Your task to perform on an android device: Open calendar and show me the third week of next month Image 0: 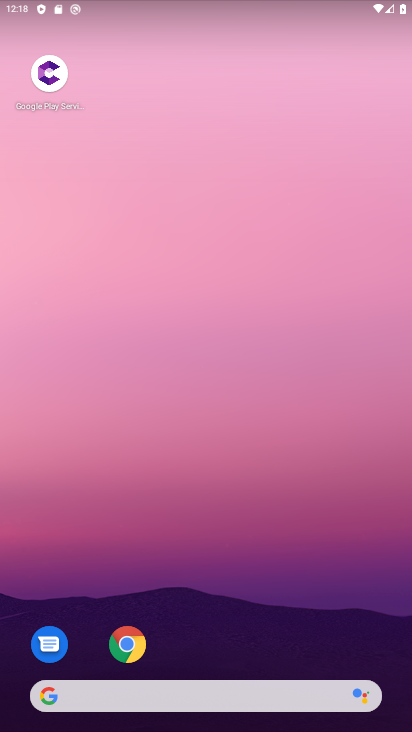
Step 0: drag from (220, 675) to (190, 194)
Your task to perform on an android device: Open calendar and show me the third week of next month Image 1: 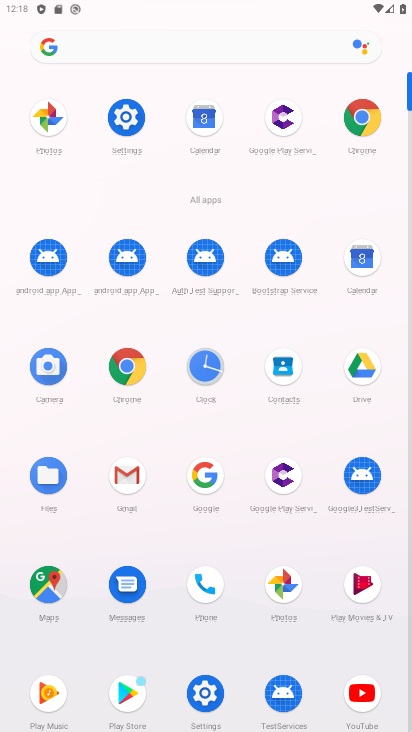
Step 1: click (194, 113)
Your task to perform on an android device: Open calendar and show me the third week of next month Image 2: 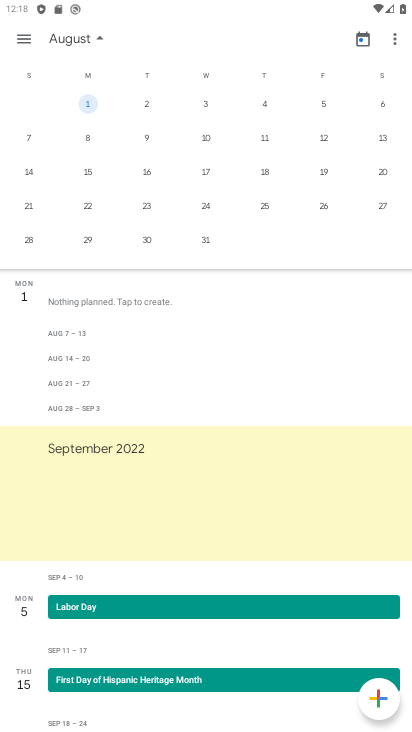
Step 2: click (28, 170)
Your task to perform on an android device: Open calendar and show me the third week of next month Image 3: 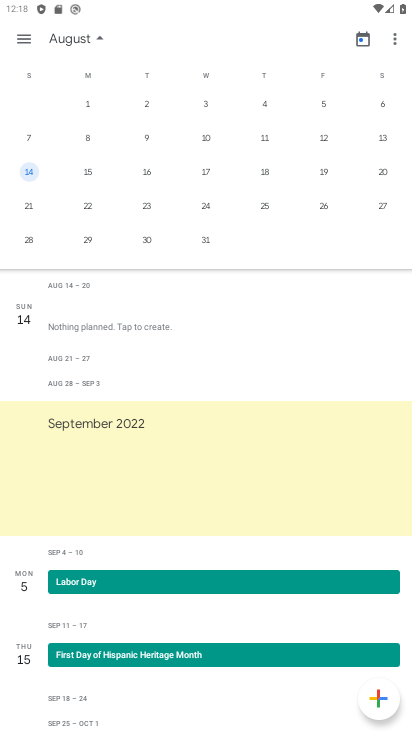
Step 3: task complete